Your task to perform on an android device: Search for flights from Buenos aires to Helsinki Image 0: 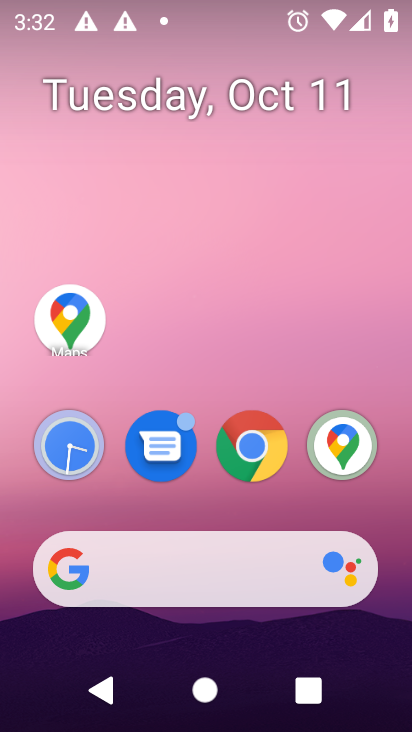
Step 0: click (251, 450)
Your task to perform on an android device: Search for flights from Buenos aires to Helsinki Image 1: 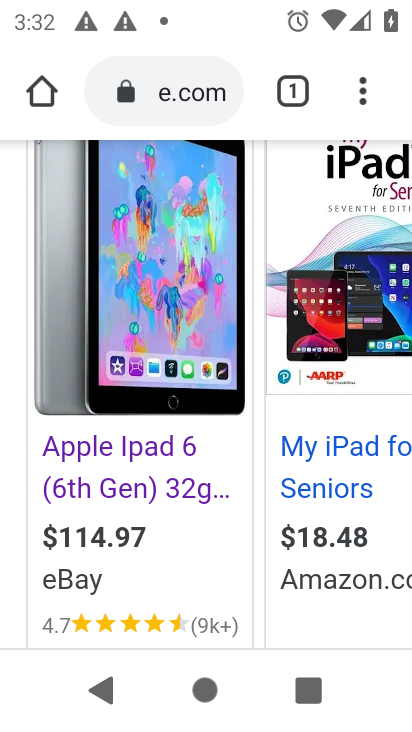
Step 1: click (190, 98)
Your task to perform on an android device: Search for flights from Buenos aires to Helsinki Image 2: 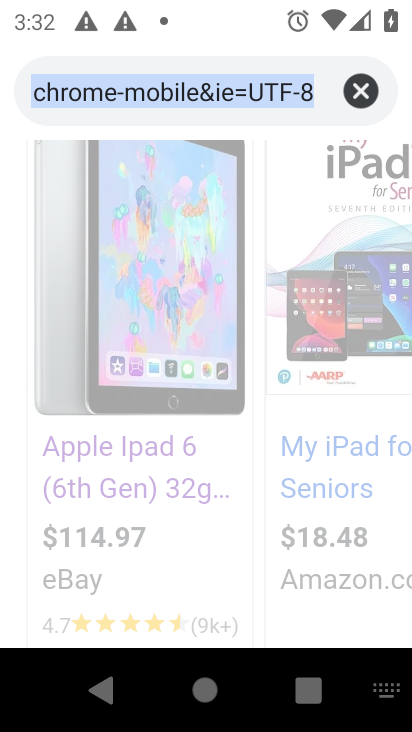
Step 2: click (353, 94)
Your task to perform on an android device: Search for flights from Buenos aires to Helsinki Image 3: 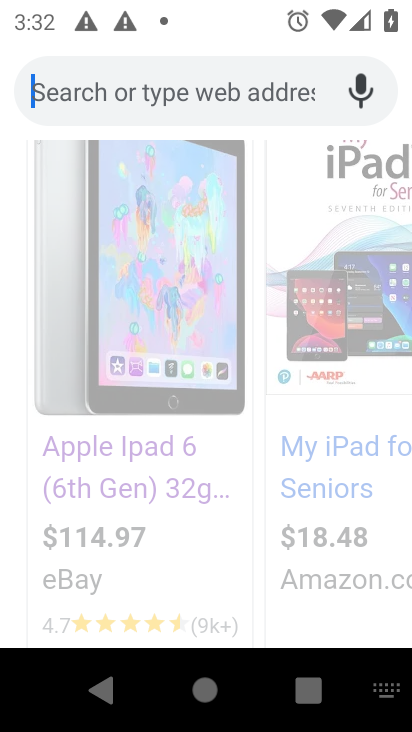
Step 3: type "Buenos aires to Helsinki flights"
Your task to perform on an android device: Search for flights from Buenos aires to Helsinki Image 4: 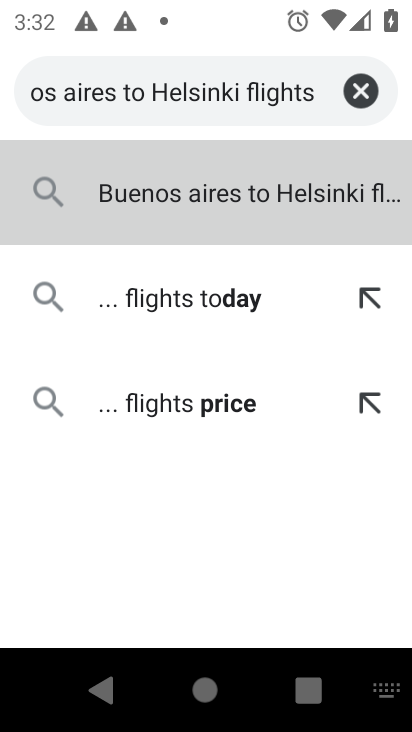
Step 4: click (197, 205)
Your task to perform on an android device: Search for flights from Buenos aires to Helsinki Image 5: 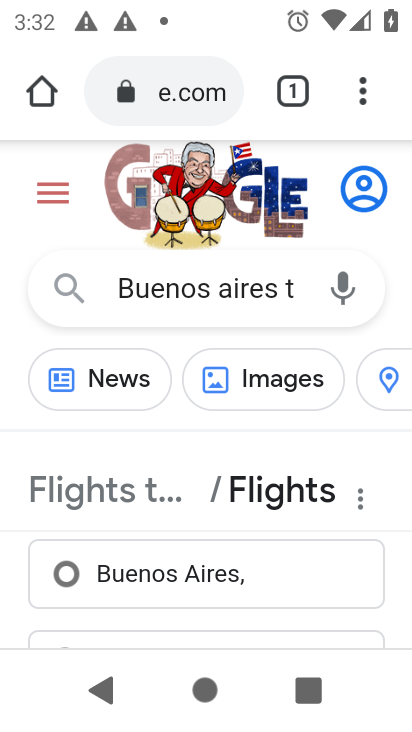
Step 5: task complete